Your task to perform on an android device: Open sound settings Image 0: 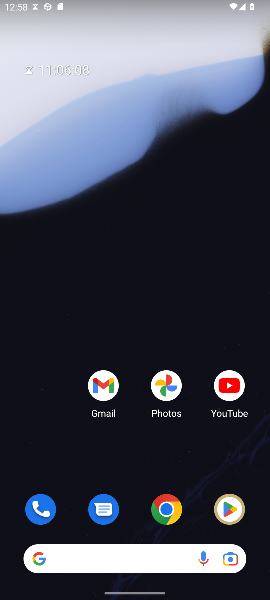
Step 0: press home button
Your task to perform on an android device: Open sound settings Image 1: 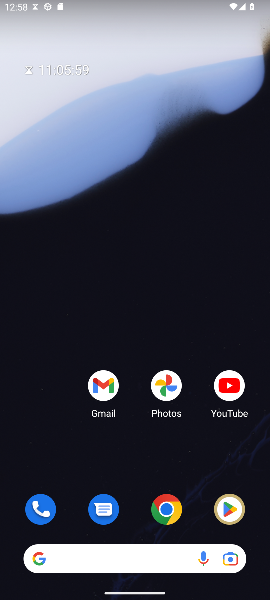
Step 1: drag from (142, 494) to (170, 38)
Your task to perform on an android device: Open sound settings Image 2: 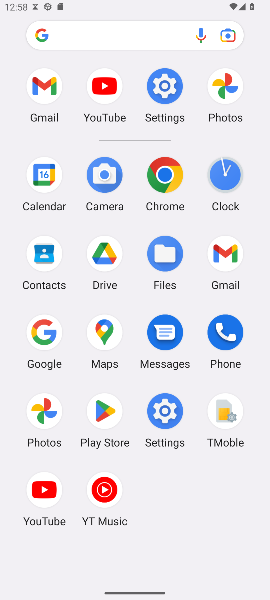
Step 2: click (176, 84)
Your task to perform on an android device: Open sound settings Image 3: 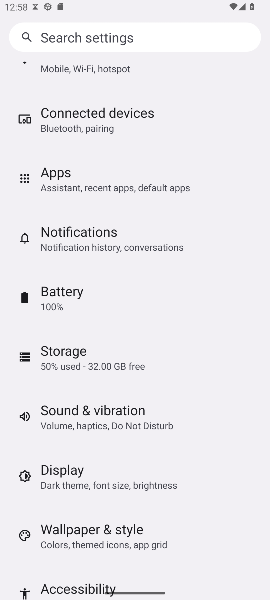
Step 3: click (59, 422)
Your task to perform on an android device: Open sound settings Image 4: 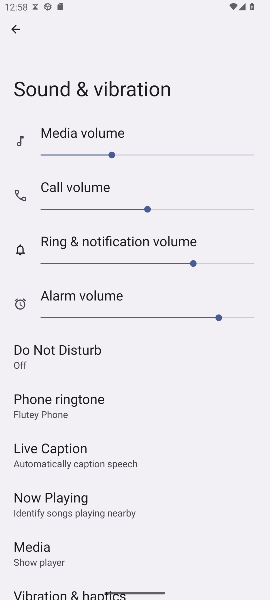
Step 4: task complete